Your task to perform on an android device: toggle translation in the chrome app Image 0: 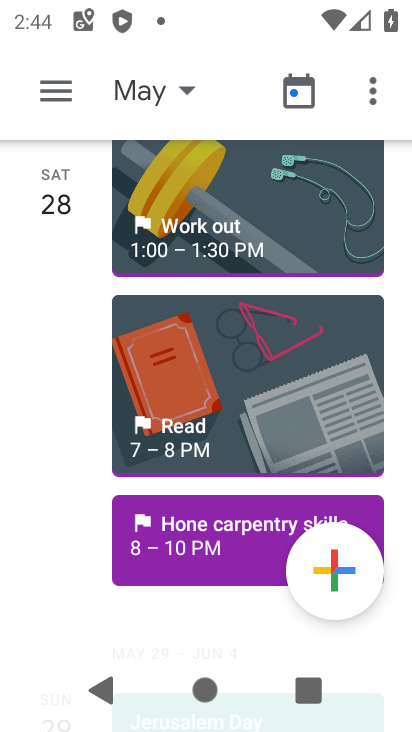
Step 0: press home button
Your task to perform on an android device: toggle translation in the chrome app Image 1: 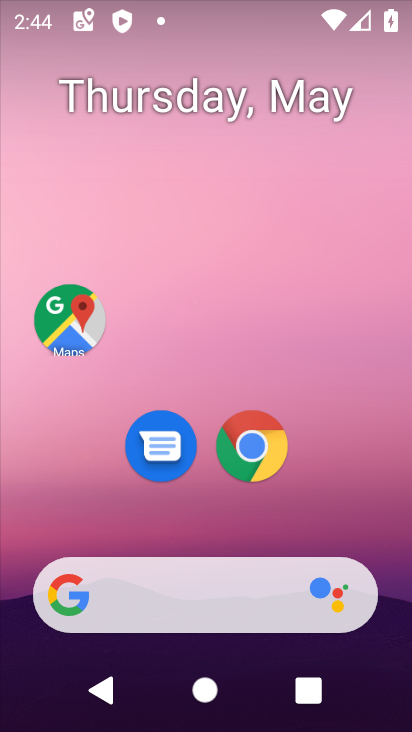
Step 1: click (252, 450)
Your task to perform on an android device: toggle translation in the chrome app Image 2: 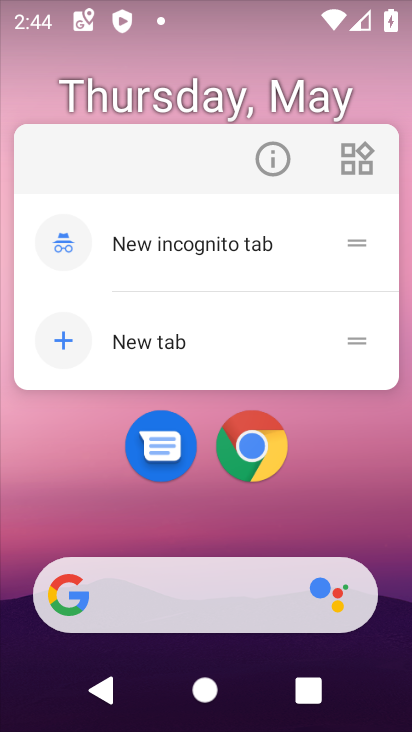
Step 2: click (243, 448)
Your task to perform on an android device: toggle translation in the chrome app Image 3: 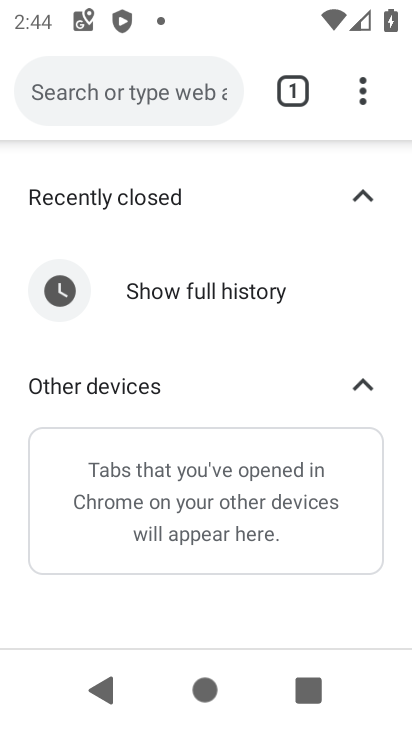
Step 3: click (363, 91)
Your task to perform on an android device: toggle translation in the chrome app Image 4: 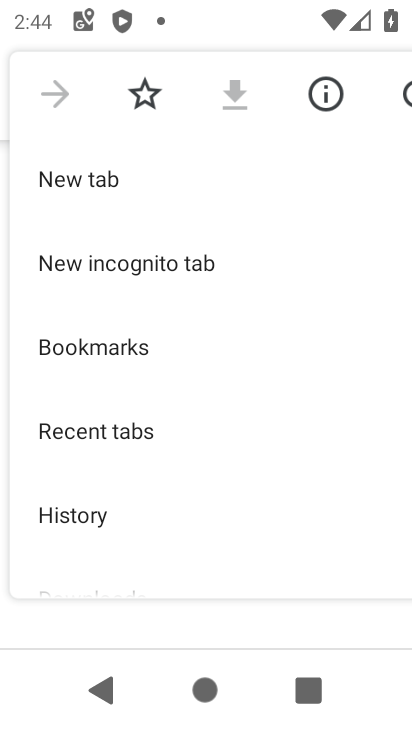
Step 4: drag from (169, 502) to (182, 229)
Your task to perform on an android device: toggle translation in the chrome app Image 5: 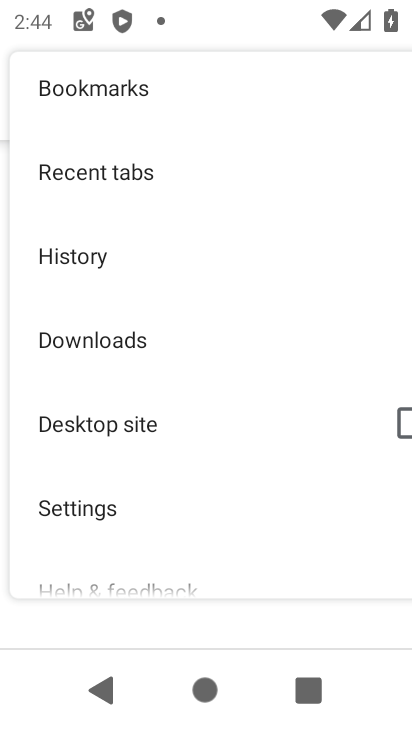
Step 5: click (139, 511)
Your task to perform on an android device: toggle translation in the chrome app Image 6: 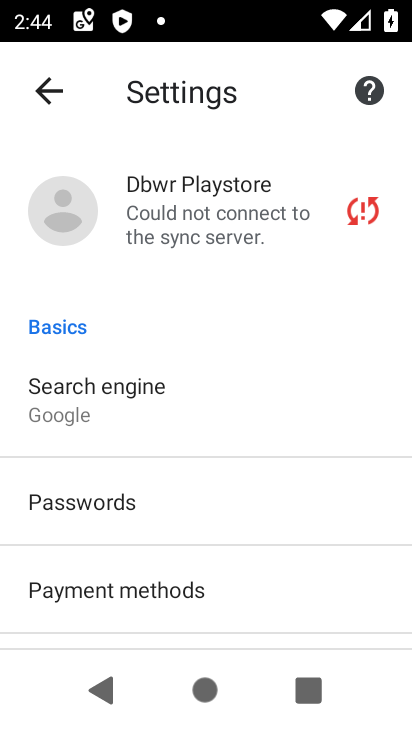
Step 6: drag from (185, 617) to (207, 211)
Your task to perform on an android device: toggle translation in the chrome app Image 7: 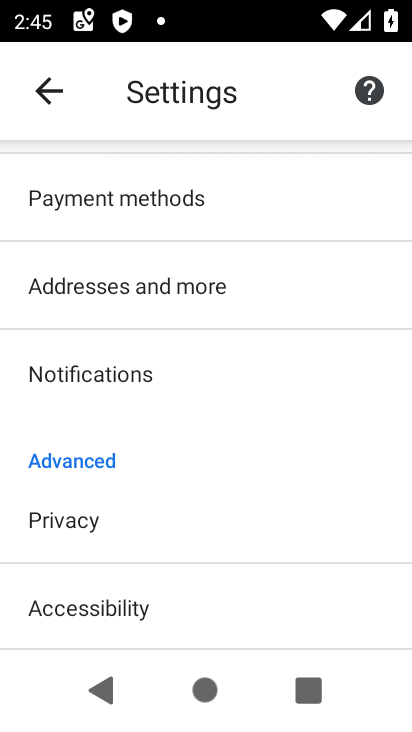
Step 7: drag from (206, 526) to (222, 271)
Your task to perform on an android device: toggle translation in the chrome app Image 8: 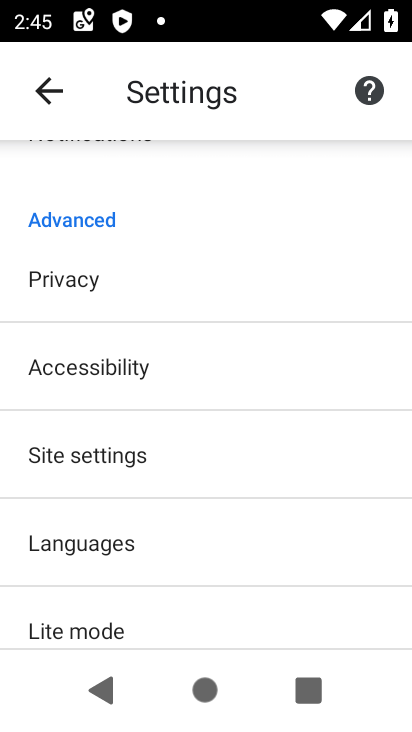
Step 8: click (191, 539)
Your task to perform on an android device: toggle translation in the chrome app Image 9: 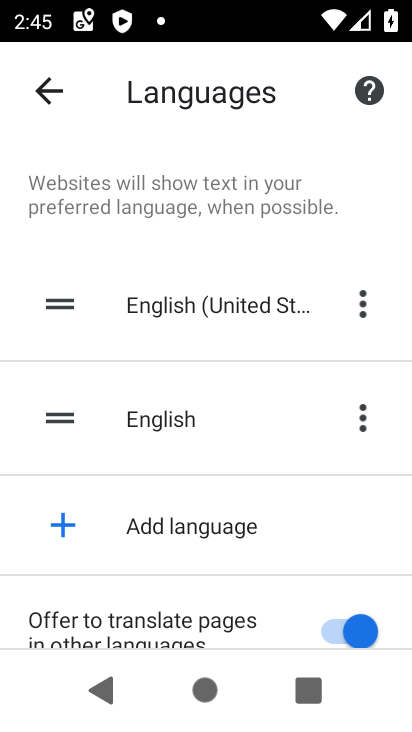
Step 9: drag from (220, 585) to (263, 300)
Your task to perform on an android device: toggle translation in the chrome app Image 10: 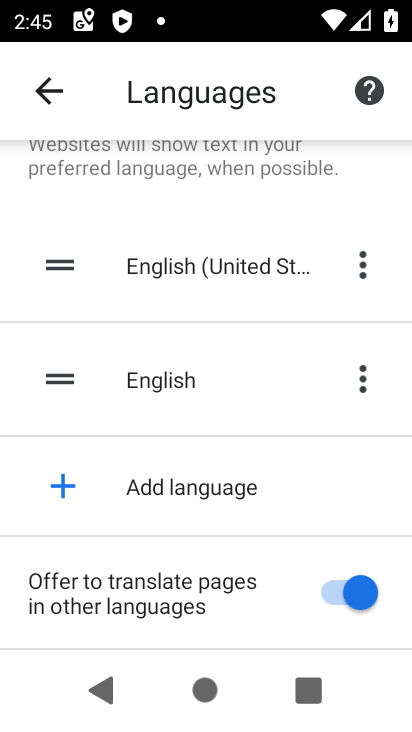
Step 10: click (327, 585)
Your task to perform on an android device: toggle translation in the chrome app Image 11: 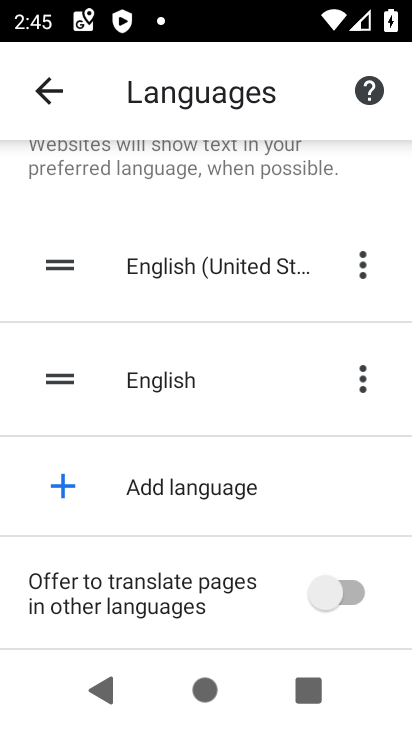
Step 11: task complete